Your task to perform on an android device: open device folders in google photos Image 0: 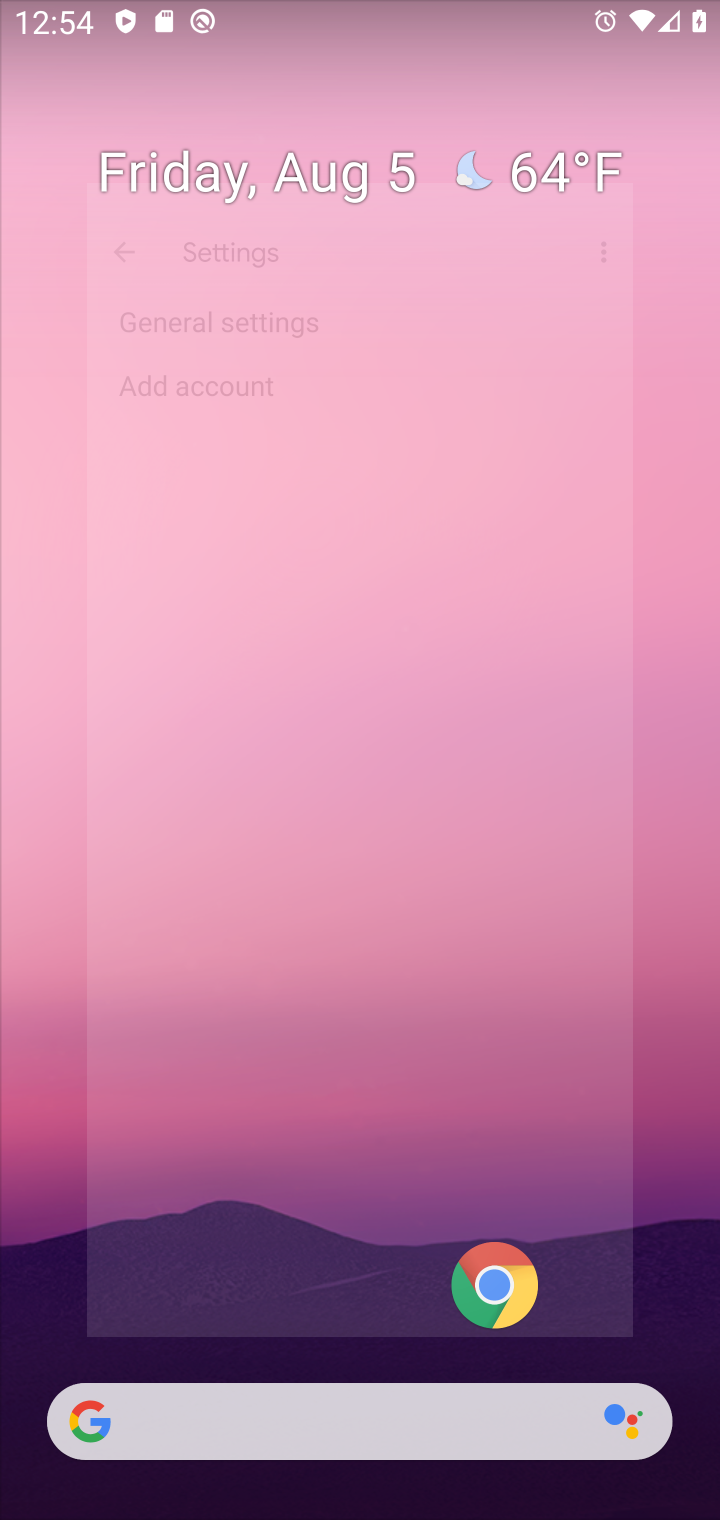
Step 0: press home button
Your task to perform on an android device: open device folders in google photos Image 1: 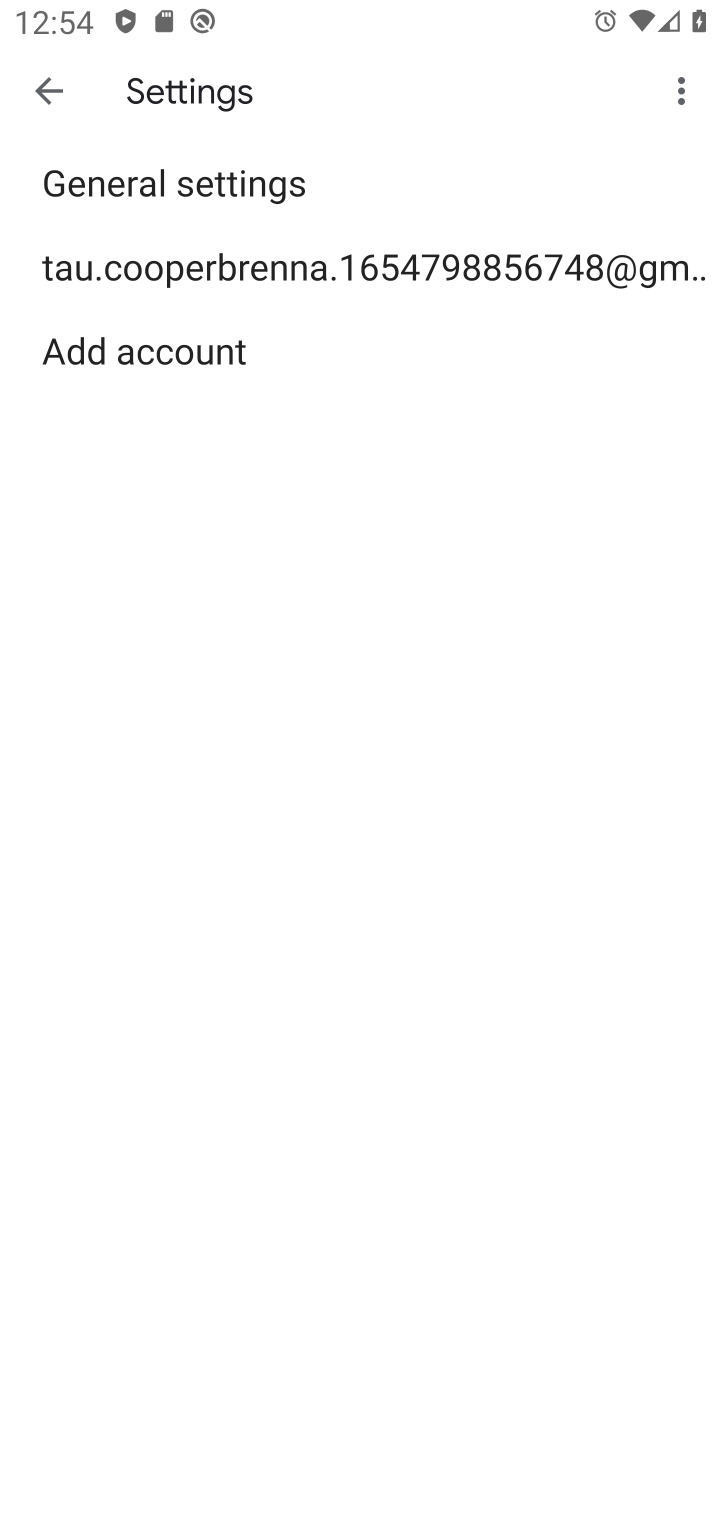
Step 1: press home button
Your task to perform on an android device: open device folders in google photos Image 2: 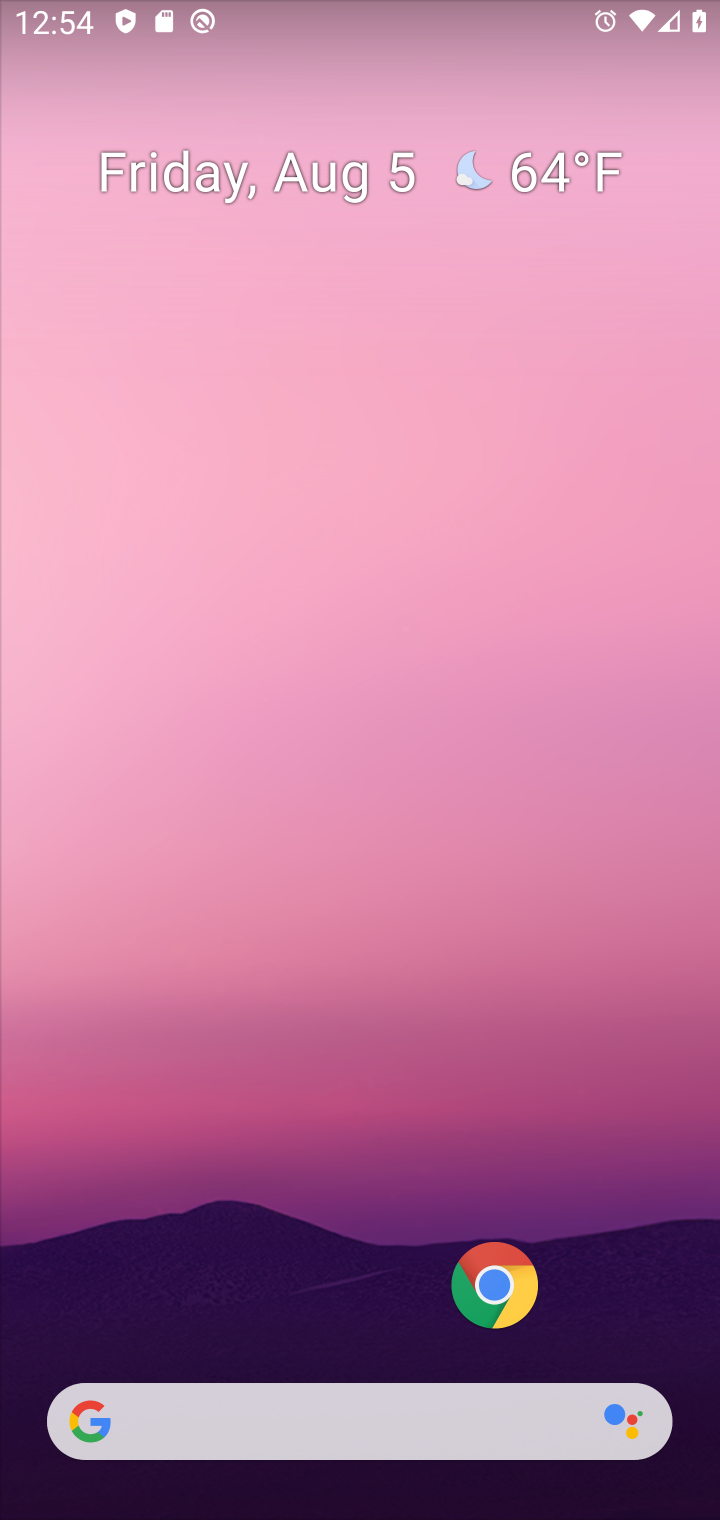
Step 2: press home button
Your task to perform on an android device: open device folders in google photos Image 3: 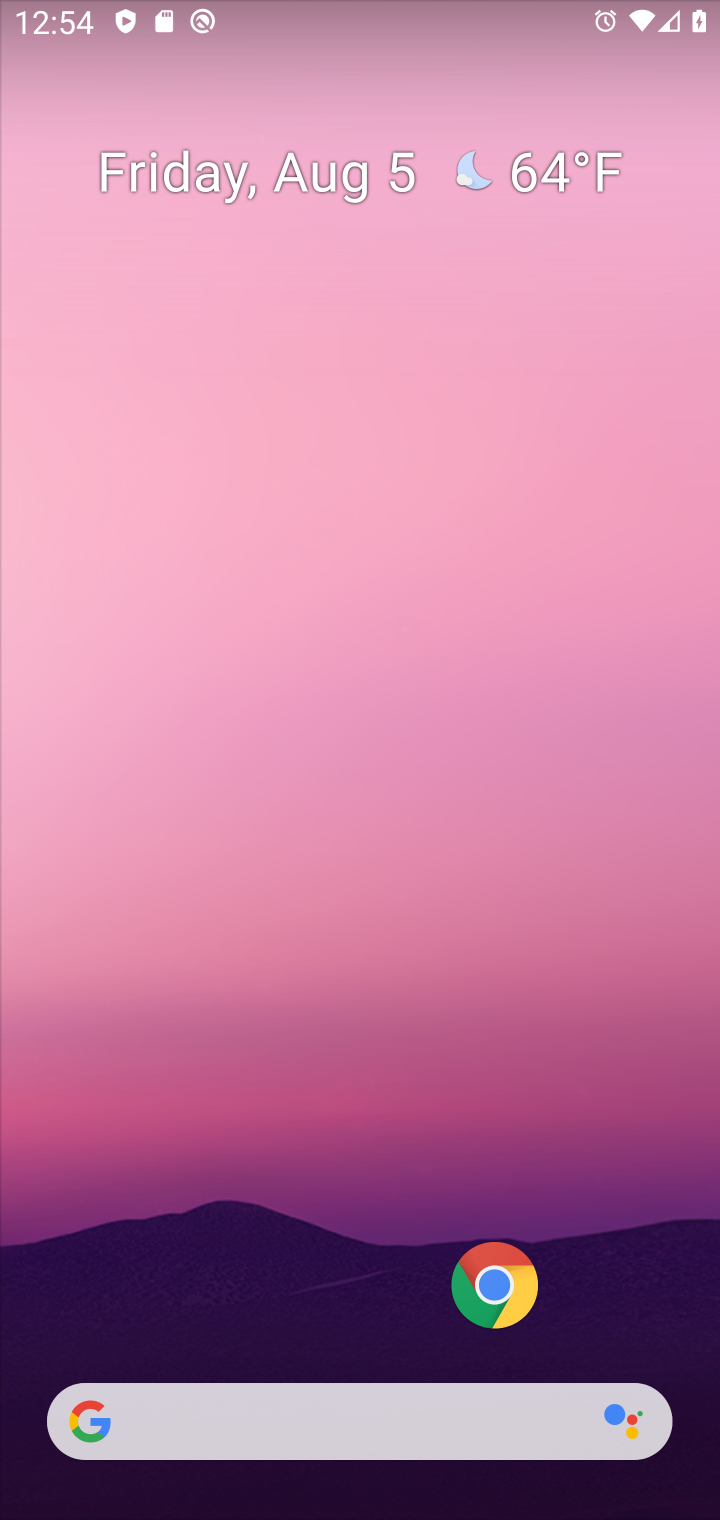
Step 3: press home button
Your task to perform on an android device: open device folders in google photos Image 4: 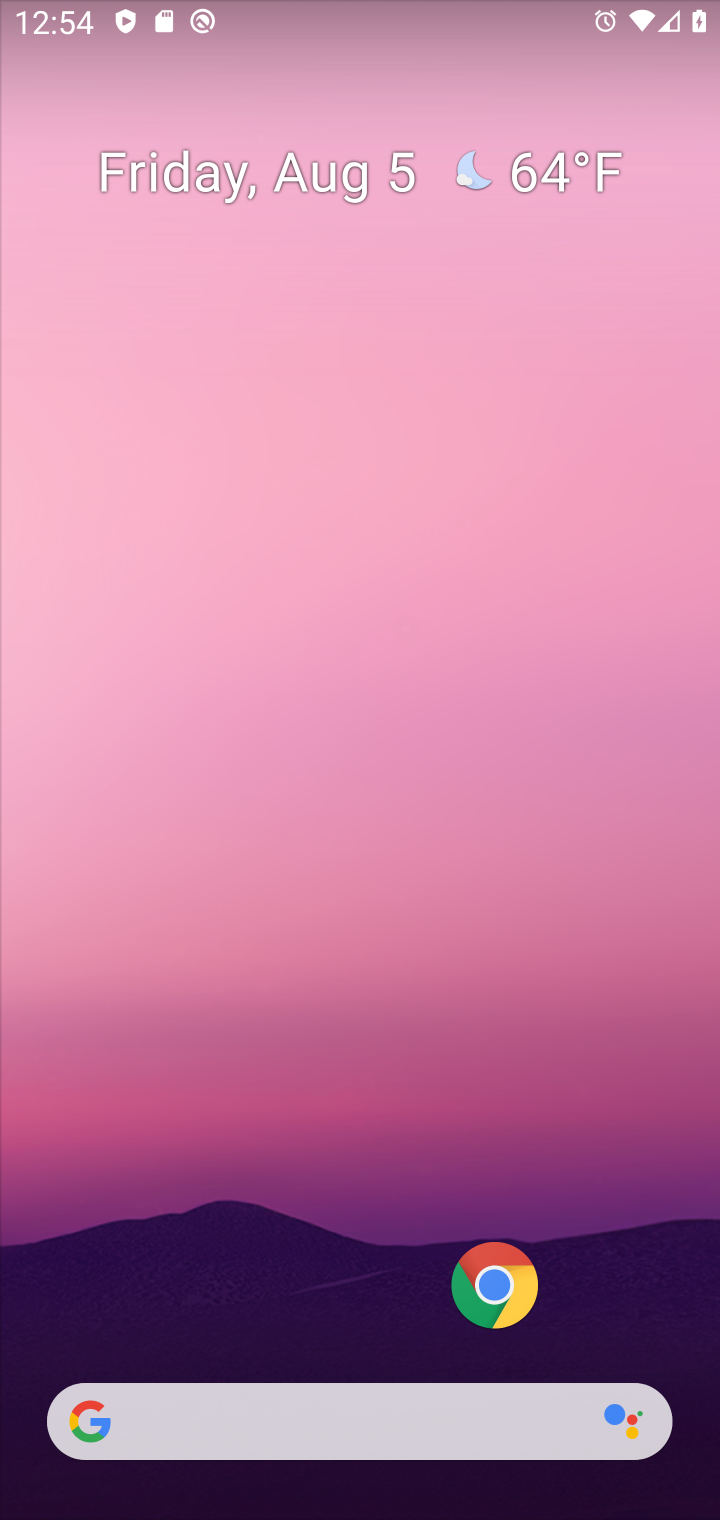
Step 4: press home button
Your task to perform on an android device: open device folders in google photos Image 5: 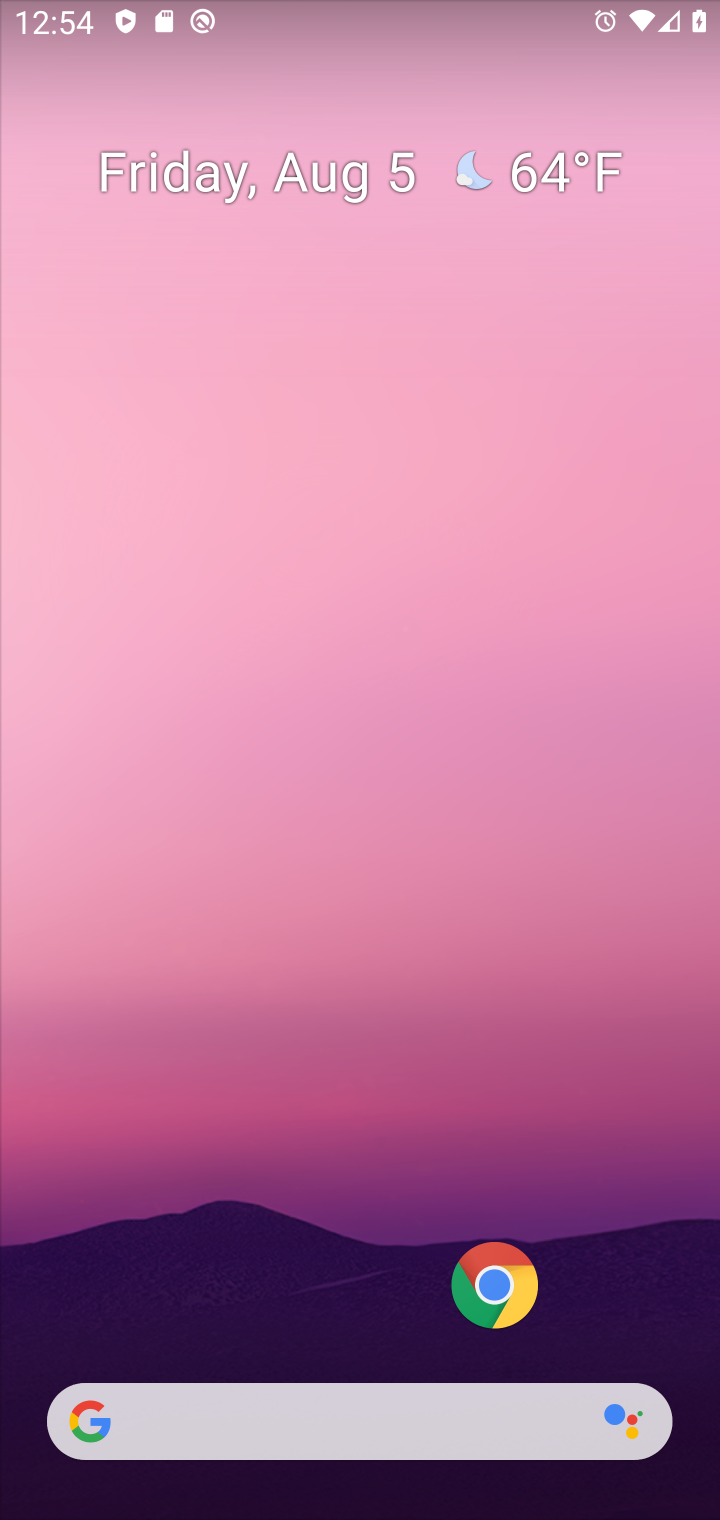
Step 5: drag from (327, 1352) to (424, 273)
Your task to perform on an android device: open device folders in google photos Image 6: 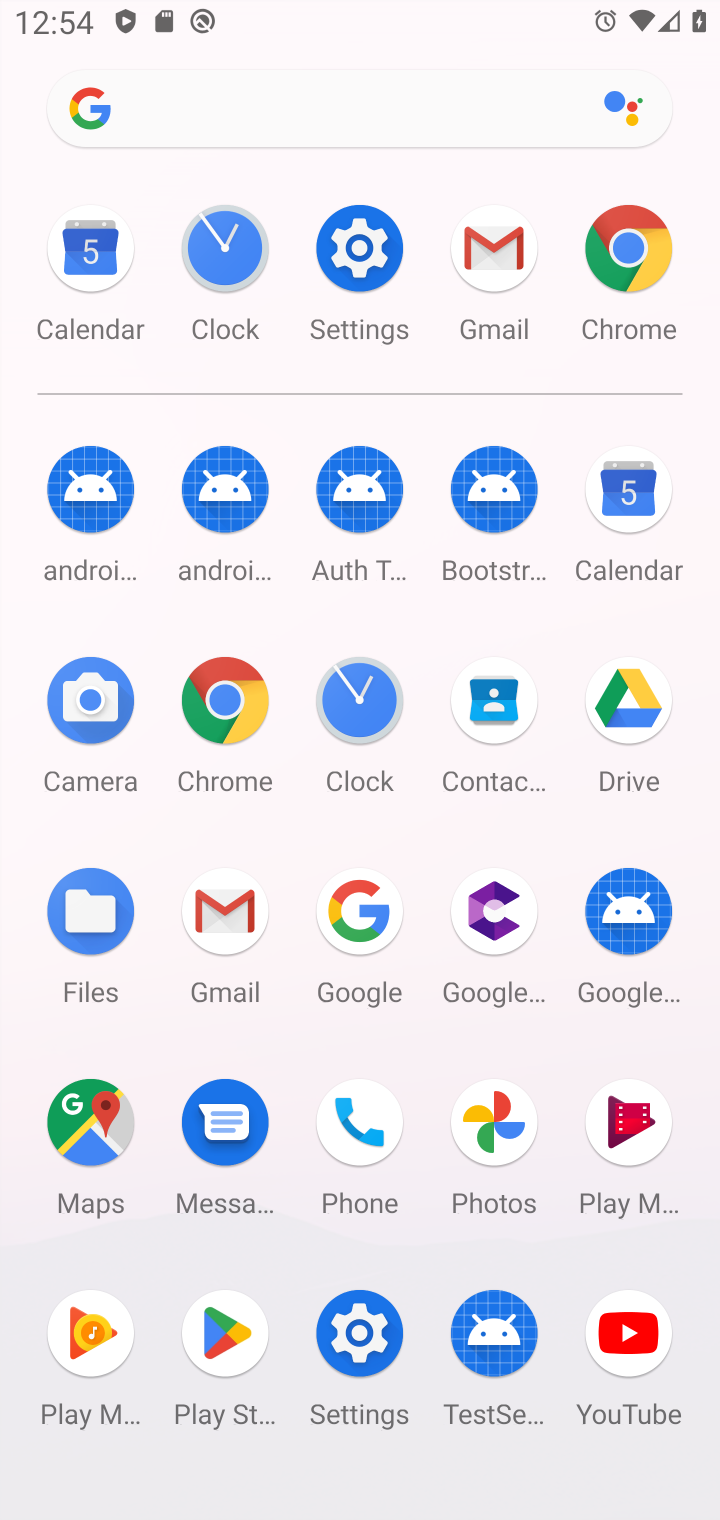
Step 6: click (367, 969)
Your task to perform on an android device: open device folders in google photos Image 7: 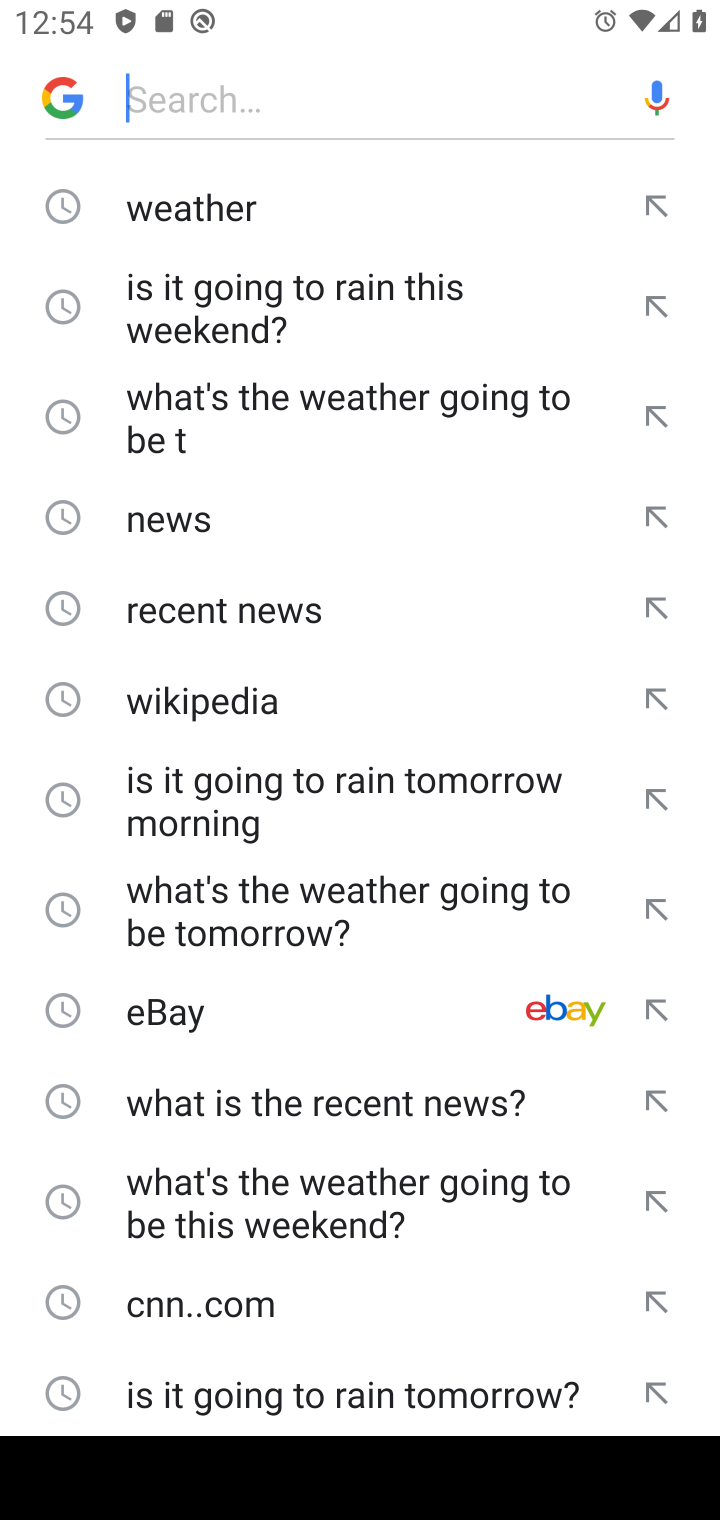
Step 7: press back button
Your task to perform on an android device: open device folders in google photos Image 8: 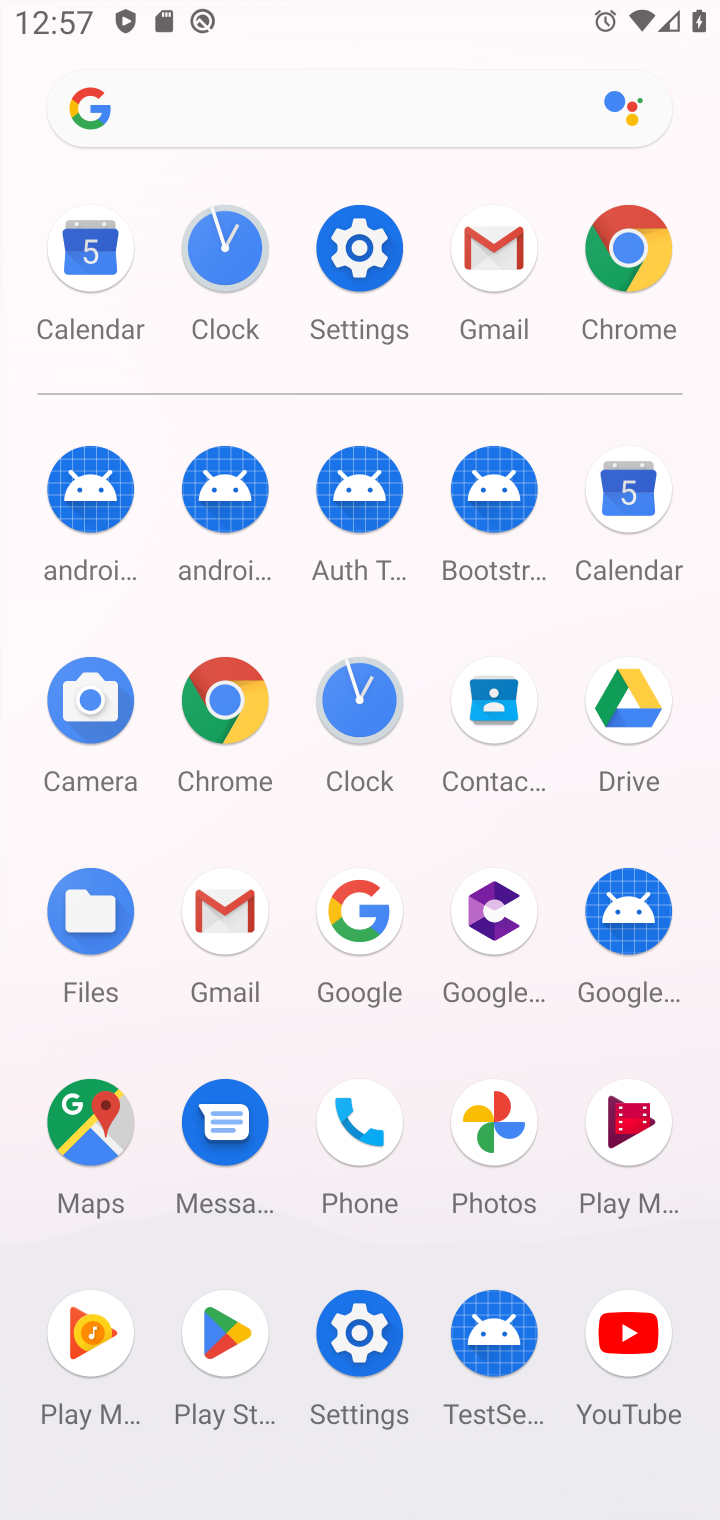
Step 8: click (516, 1146)
Your task to perform on an android device: open device folders in google photos Image 9: 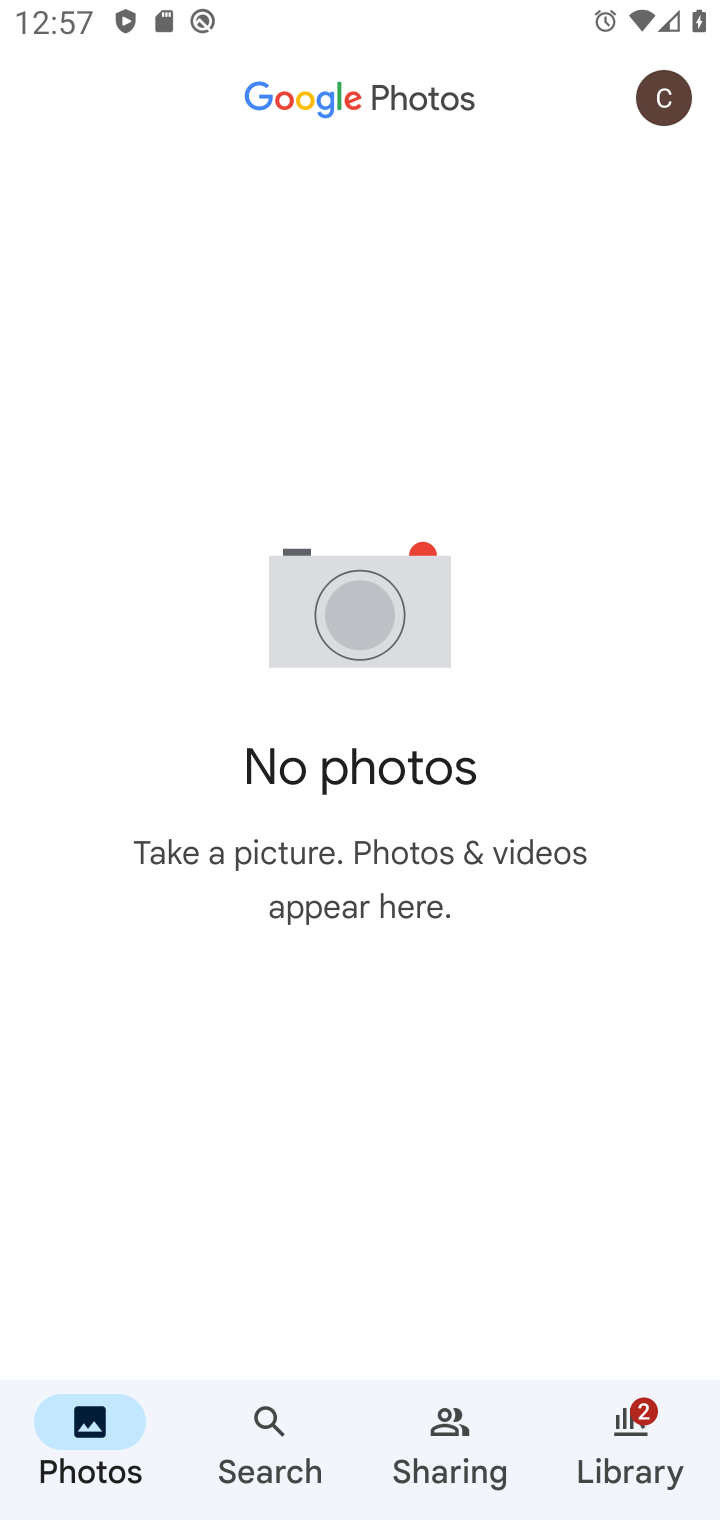
Step 9: task complete